Your task to perform on an android device: delete location history Image 0: 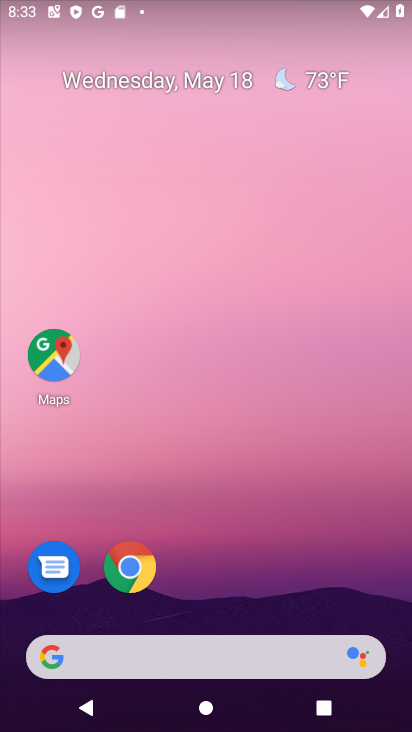
Step 0: drag from (248, 575) to (221, 11)
Your task to perform on an android device: delete location history Image 1: 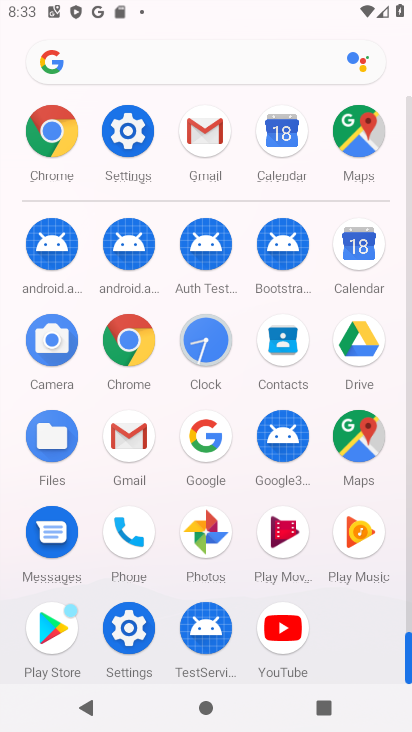
Step 1: click (129, 627)
Your task to perform on an android device: delete location history Image 2: 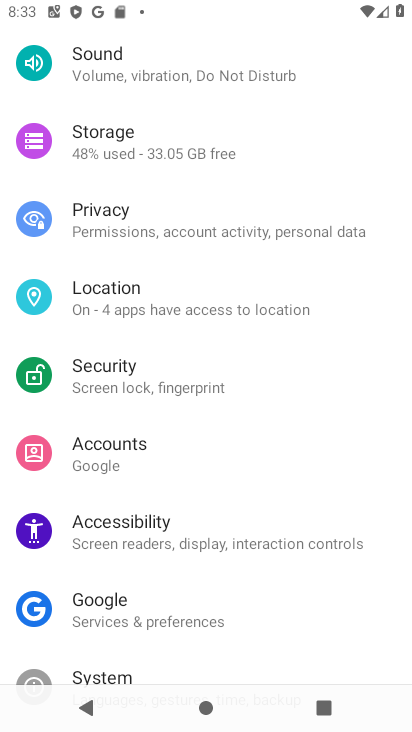
Step 2: click (164, 297)
Your task to perform on an android device: delete location history Image 3: 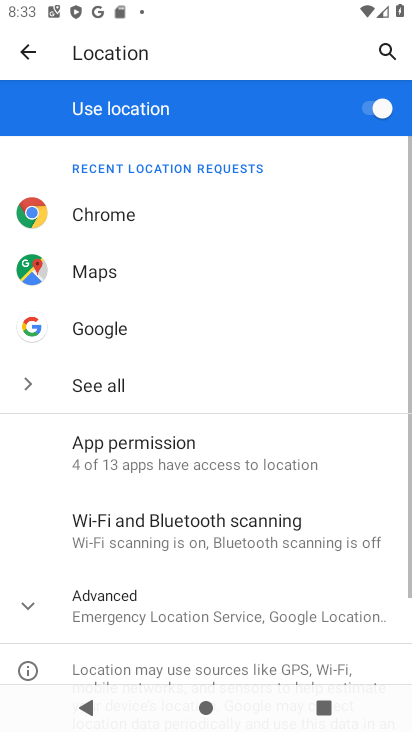
Step 3: click (101, 618)
Your task to perform on an android device: delete location history Image 4: 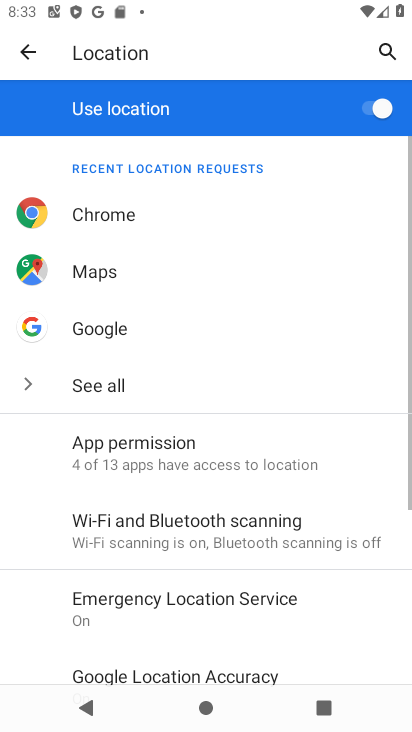
Step 4: drag from (273, 584) to (317, 193)
Your task to perform on an android device: delete location history Image 5: 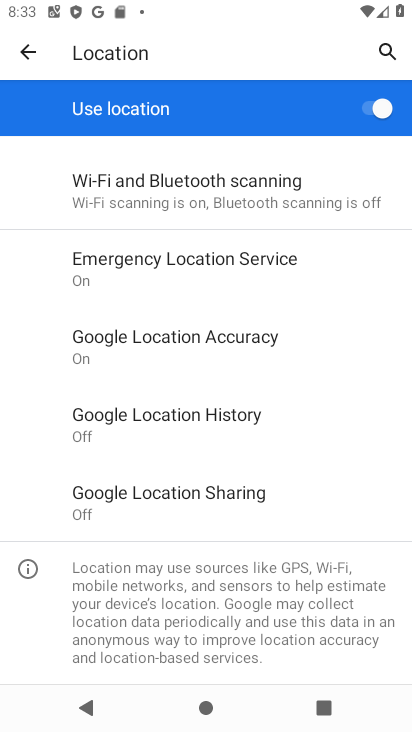
Step 5: click (194, 413)
Your task to perform on an android device: delete location history Image 6: 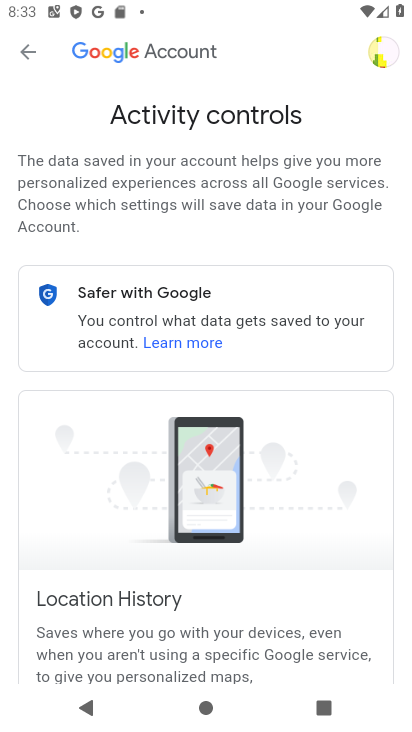
Step 6: drag from (261, 559) to (319, 72)
Your task to perform on an android device: delete location history Image 7: 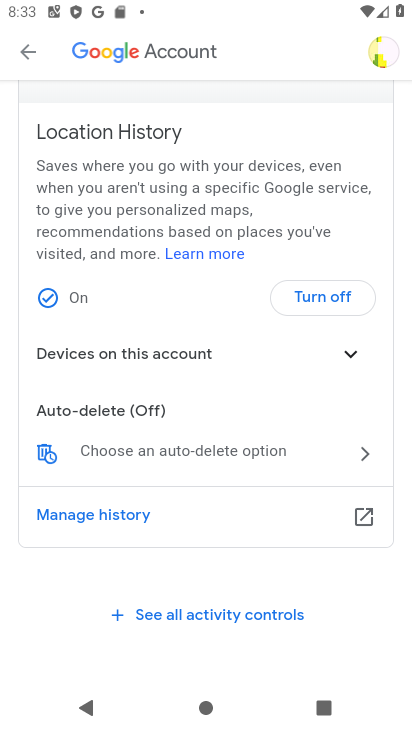
Step 7: click (96, 456)
Your task to perform on an android device: delete location history Image 8: 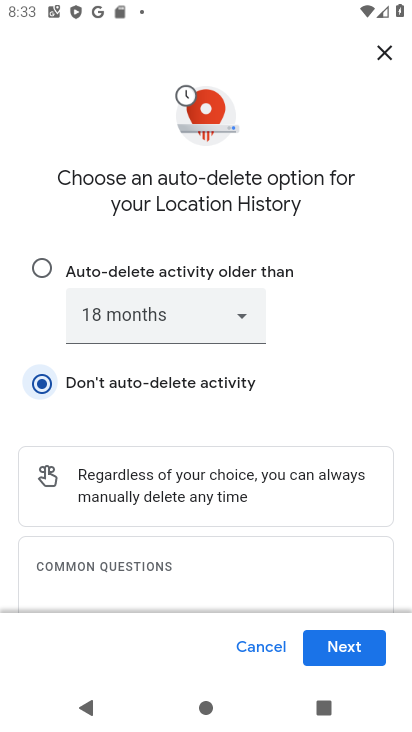
Step 8: click (350, 647)
Your task to perform on an android device: delete location history Image 9: 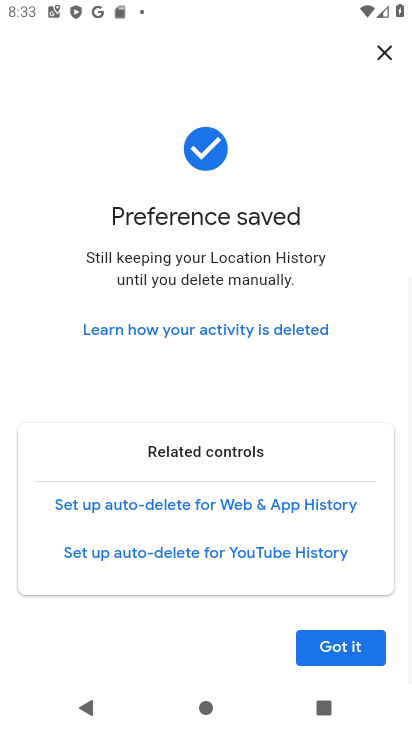
Step 9: drag from (291, 527) to (310, 458)
Your task to perform on an android device: delete location history Image 10: 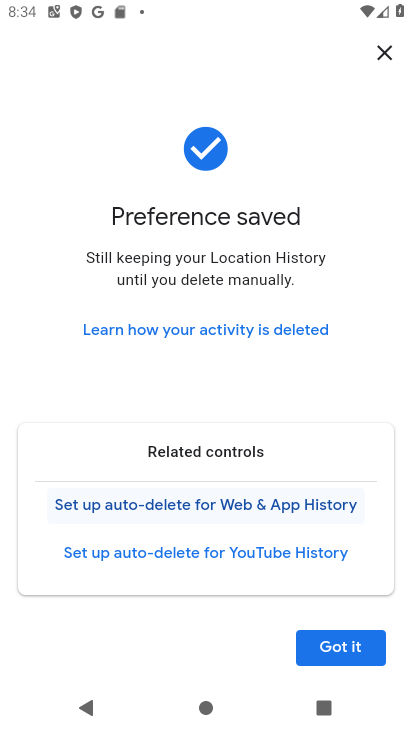
Step 10: press back button
Your task to perform on an android device: delete location history Image 11: 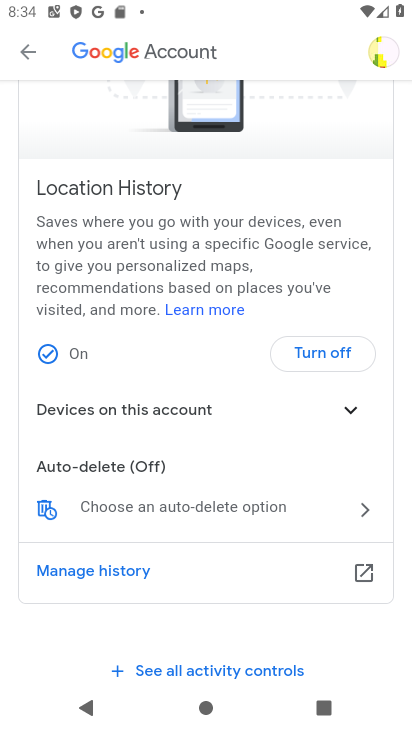
Step 11: click (116, 506)
Your task to perform on an android device: delete location history Image 12: 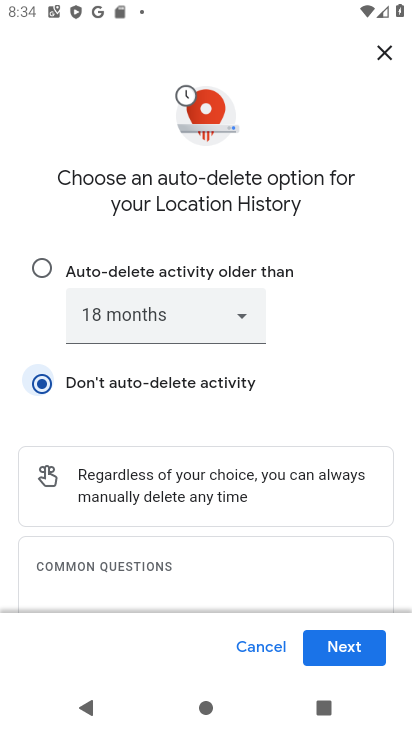
Step 12: click (351, 643)
Your task to perform on an android device: delete location history Image 13: 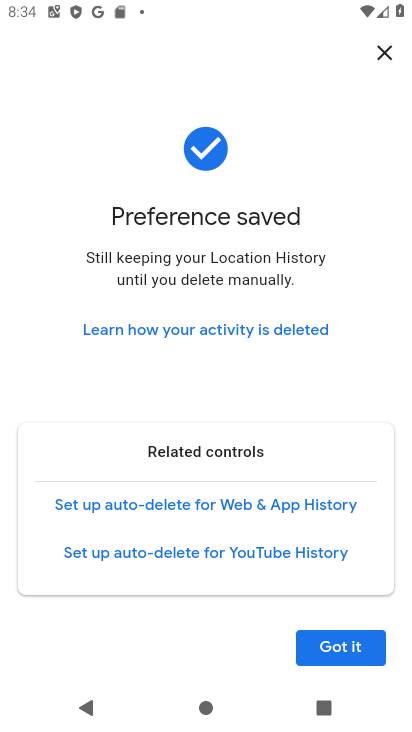
Step 13: task complete